Your task to perform on an android device: Is it going to rain tomorrow? Image 0: 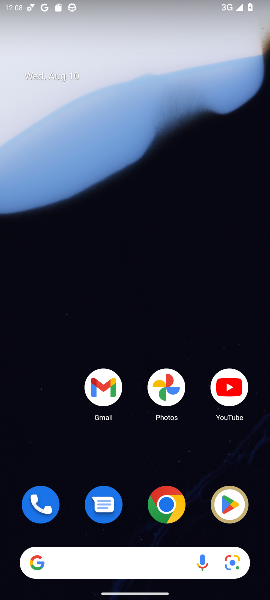
Step 0: press home button
Your task to perform on an android device: Is it going to rain tomorrow? Image 1: 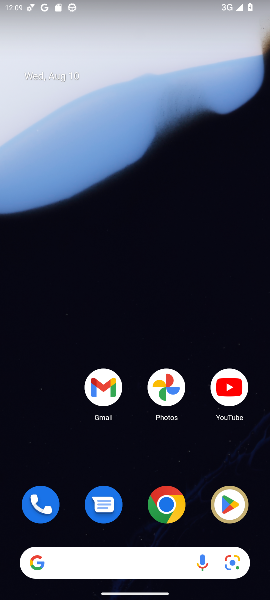
Step 1: drag from (139, 533) to (154, 191)
Your task to perform on an android device: Is it going to rain tomorrow? Image 2: 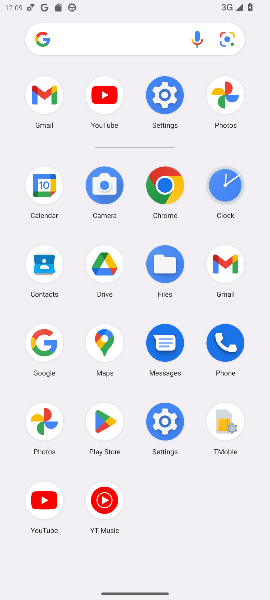
Step 2: click (38, 355)
Your task to perform on an android device: Is it going to rain tomorrow? Image 3: 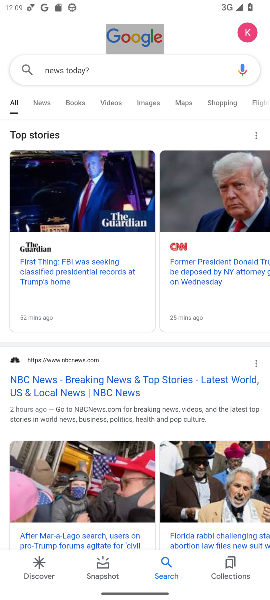
Step 3: press back button
Your task to perform on an android device: Is it going to rain tomorrow? Image 4: 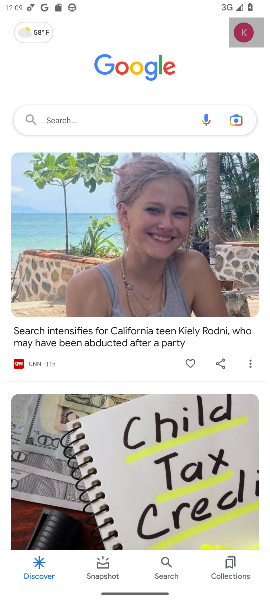
Step 4: type "rain tomorrow?"
Your task to perform on an android device: Is it going to rain tomorrow? Image 5: 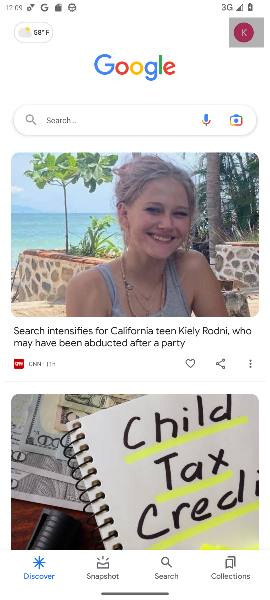
Step 5: click (104, 118)
Your task to perform on an android device: Is it going to rain tomorrow? Image 6: 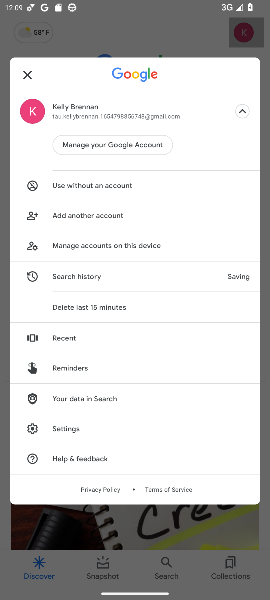
Step 6: click (28, 77)
Your task to perform on an android device: Is it going to rain tomorrow? Image 7: 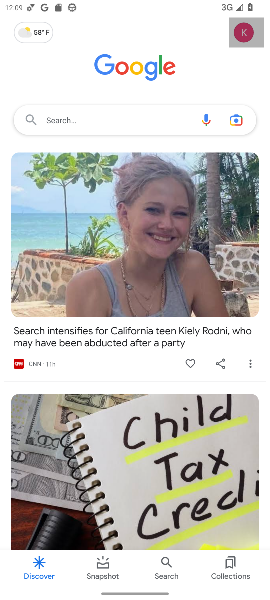
Step 7: click (106, 117)
Your task to perform on an android device: Is it going to rain tomorrow? Image 8: 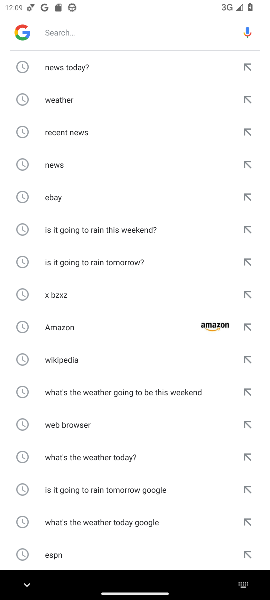
Step 8: type "rain tomorrow?"
Your task to perform on an android device: Is it going to rain tomorrow? Image 9: 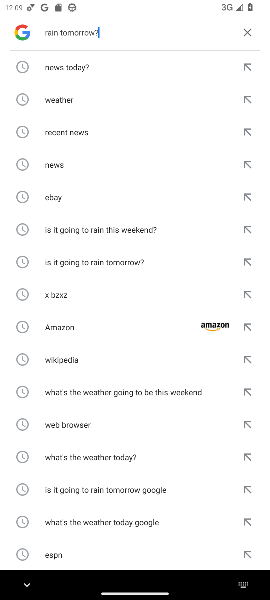
Step 9: press enter
Your task to perform on an android device: Is it going to rain tomorrow? Image 10: 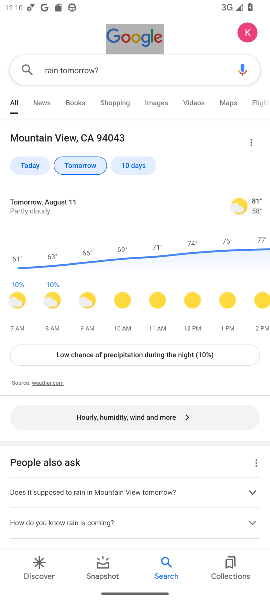
Step 10: task complete